Your task to perform on an android device: turn off wifi Image 0: 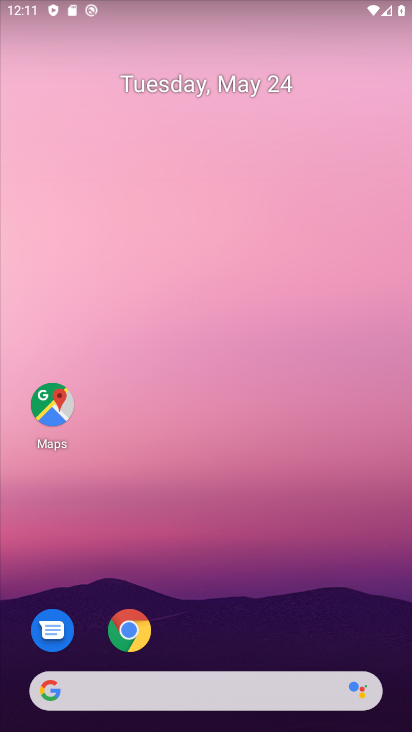
Step 0: click (310, 211)
Your task to perform on an android device: turn off wifi Image 1: 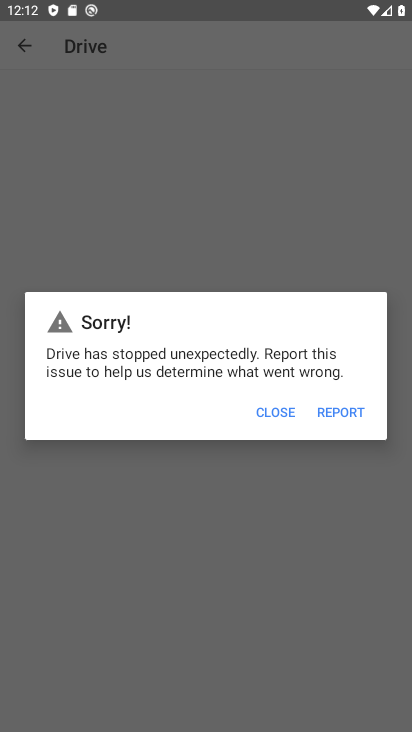
Step 1: press home button
Your task to perform on an android device: turn off wifi Image 2: 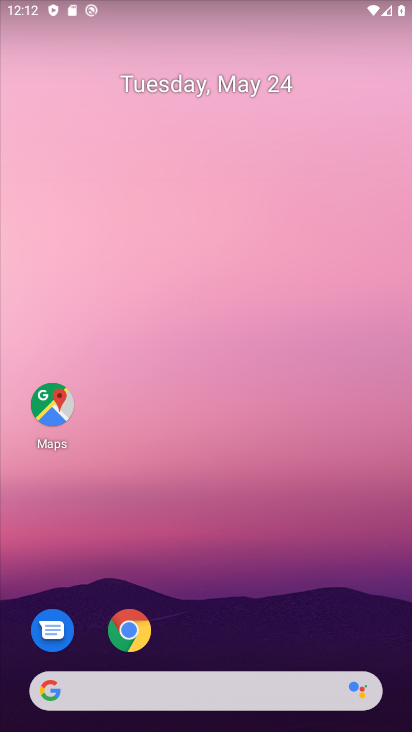
Step 2: drag from (351, 11) to (372, 686)
Your task to perform on an android device: turn off wifi Image 3: 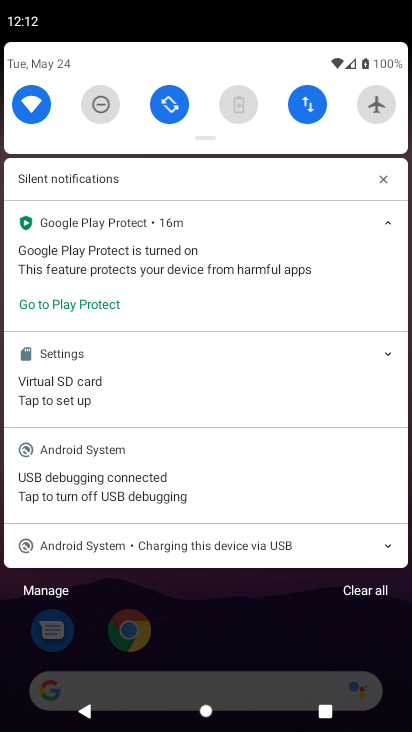
Step 3: click (27, 107)
Your task to perform on an android device: turn off wifi Image 4: 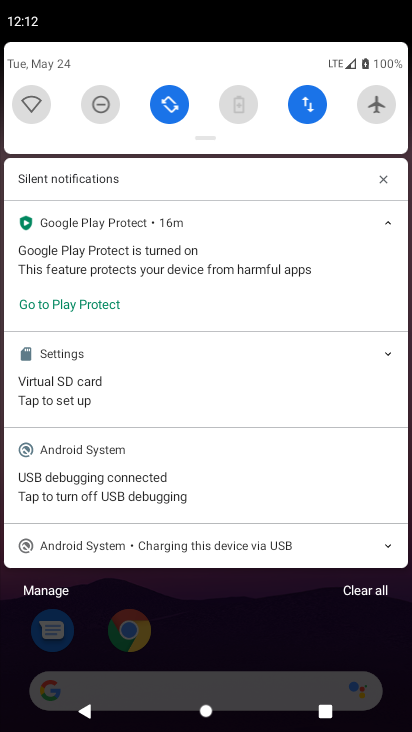
Step 4: task complete